Your task to perform on an android device: Show me the alarms in the clock app Image 0: 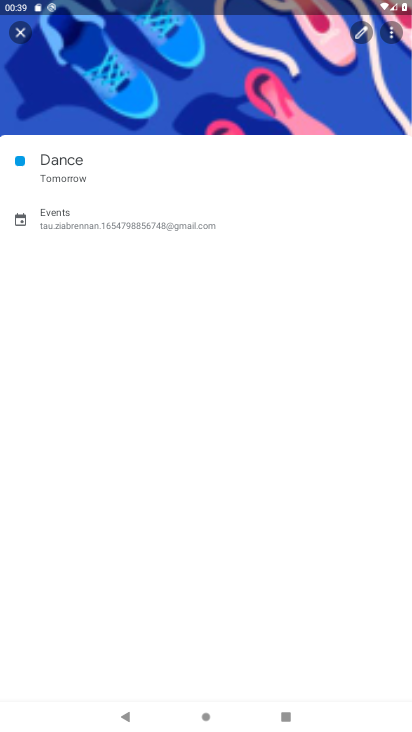
Step 0: press home button
Your task to perform on an android device: Show me the alarms in the clock app Image 1: 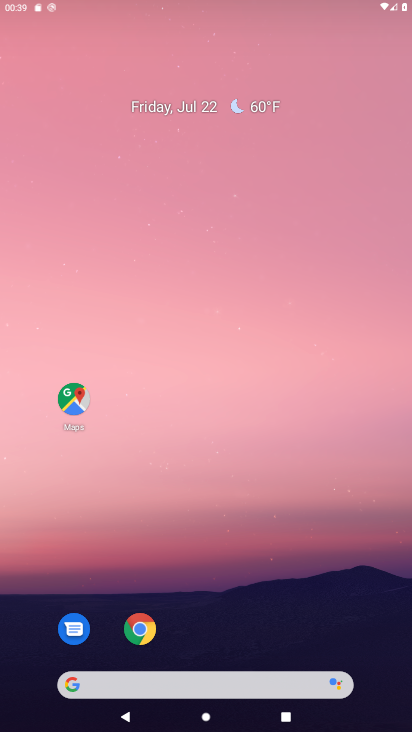
Step 1: drag from (210, 621) to (204, 303)
Your task to perform on an android device: Show me the alarms in the clock app Image 2: 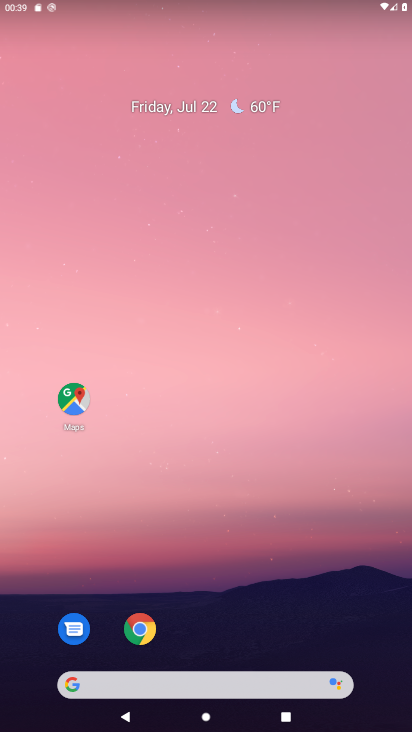
Step 2: drag from (262, 683) to (253, 304)
Your task to perform on an android device: Show me the alarms in the clock app Image 3: 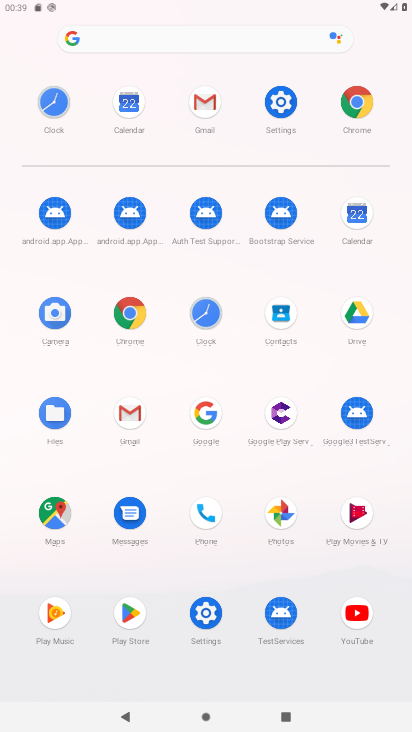
Step 3: click (194, 319)
Your task to perform on an android device: Show me the alarms in the clock app Image 4: 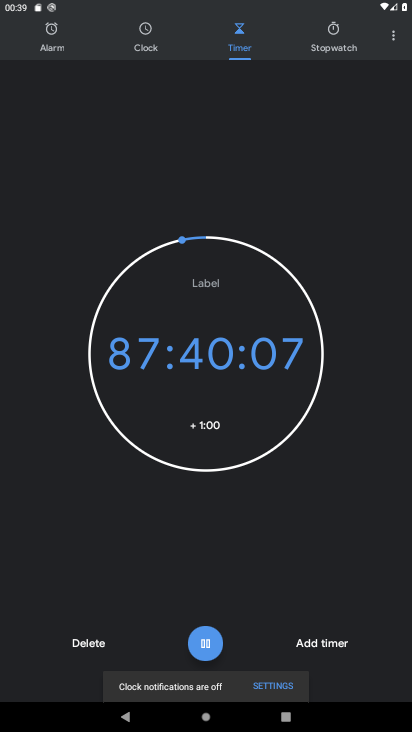
Step 4: click (45, 41)
Your task to perform on an android device: Show me the alarms in the clock app Image 5: 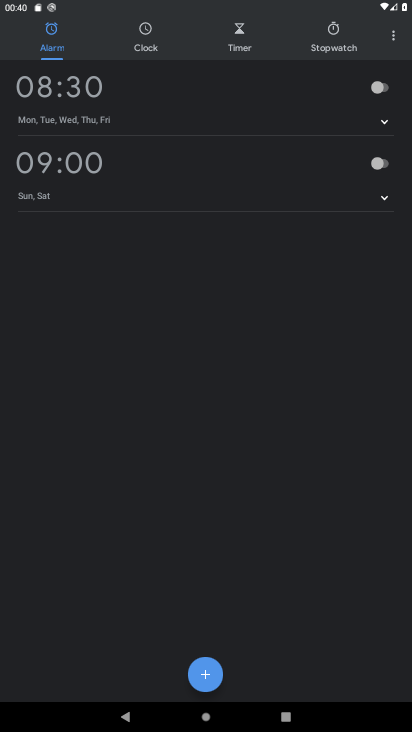
Step 5: task complete